Your task to perform on an android device: empty trash in the gmail app Image 0: 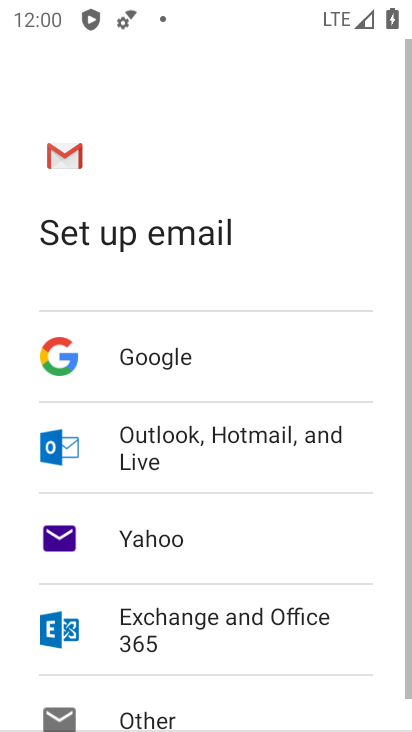
Step 0: press home button
Your task to perform on an android device: empty trash in the gmail app Image 1: 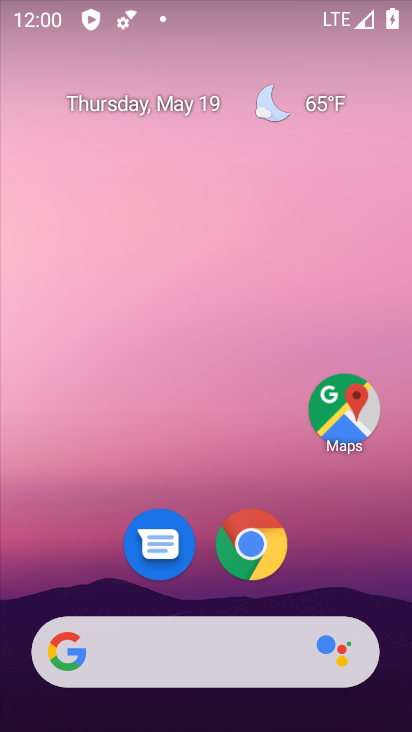
Step 1: drag from (382, 572) to (367, 204)
Your task to perform on an android device: empty trash in the gmail app Image 2: 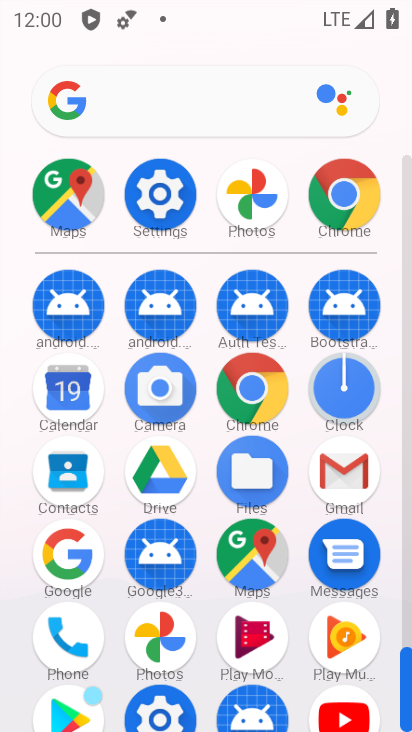
Step 2: click (357, 479)
Your task to perform on an android device: empty trash in the gmail app Image 3: 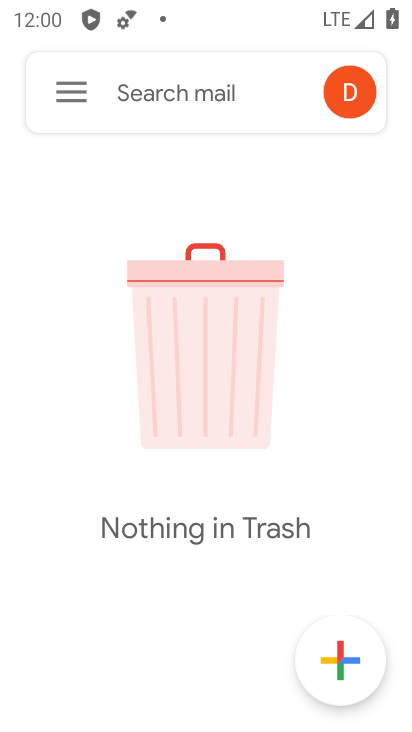
Step 3: click (64, 101)
Your task to perform on an android device: empty trash in the gmail app Image 4: 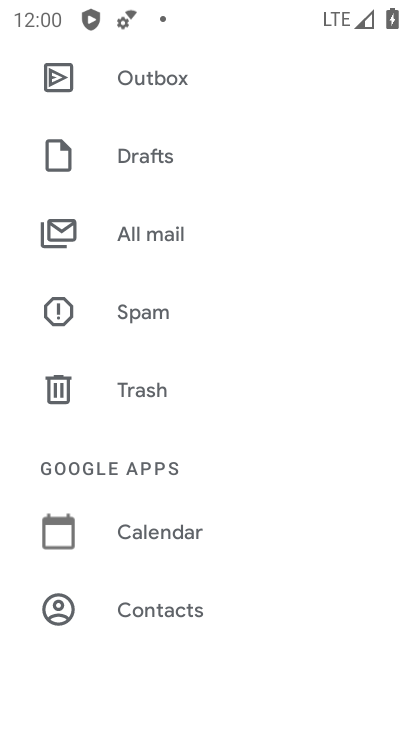
Step 4: drag from (297, 520) to (282, 362)
Your task to perform on an android device: empty trash in the gmail app Image 5: 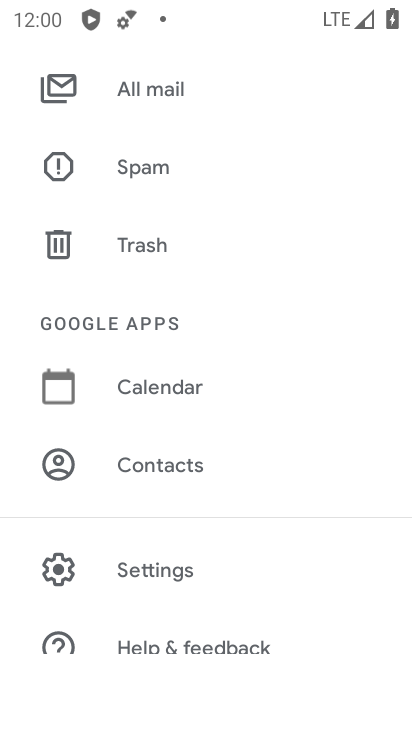
Step 5: drag from (302, 581) to (297, 415)
Your task to perform on an android device: empty trash in the gmail app Image 6: 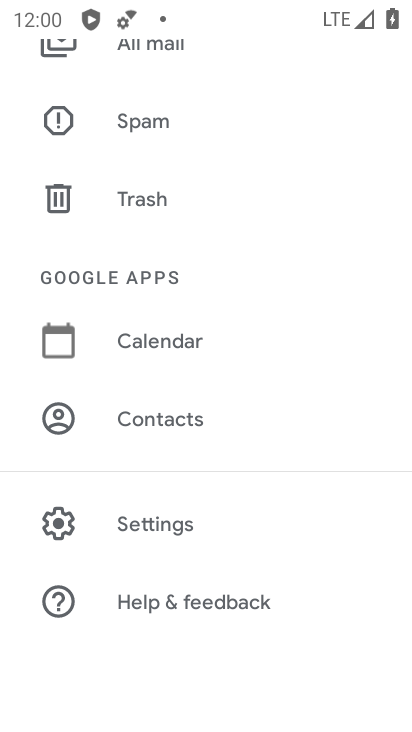
Step 6: drag from (286, 329) to (290, 473)
Your task to perform on an android device: empty trash in the gmail app Image 7: 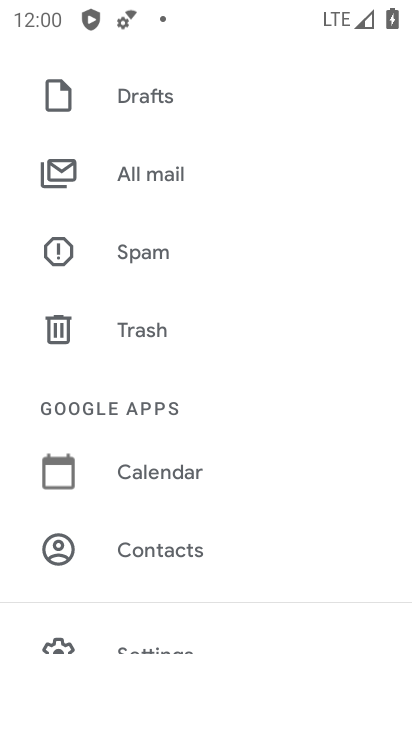
Step 7: drag from (298, 270) to (299, 402)
Your task to perform on an android device: empty trash in the gmail app Image 8: 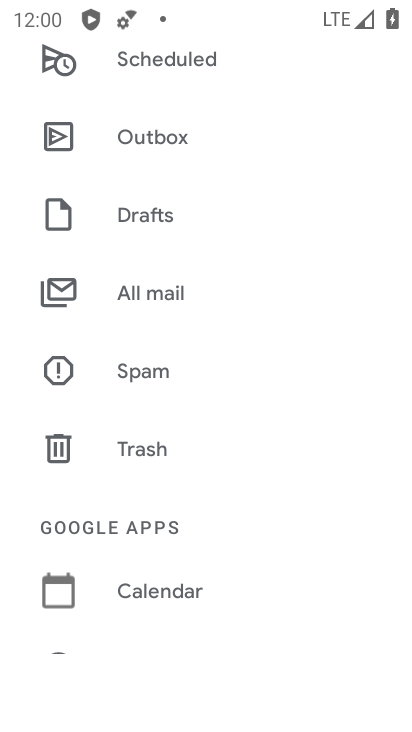
Step 8: click (172, 451)
Your task to perform on an android device: empty trash in the gmail app Image 9: 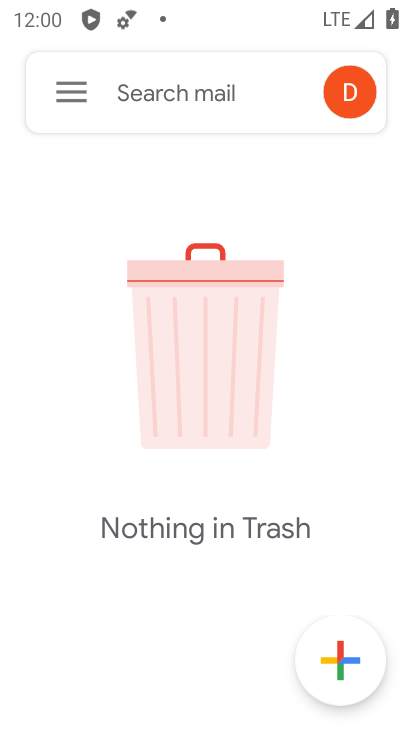
Step 9: task complete